Your task to perform on an android device: Go to Wikipedia Image 0: 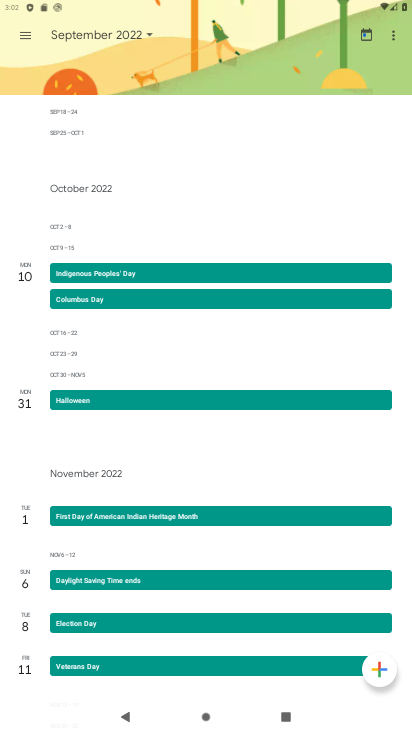
Step 0: drag from (230, 557) to (274, 337)
Your task to perform on an android device: Go to Wikipedia Image 1: 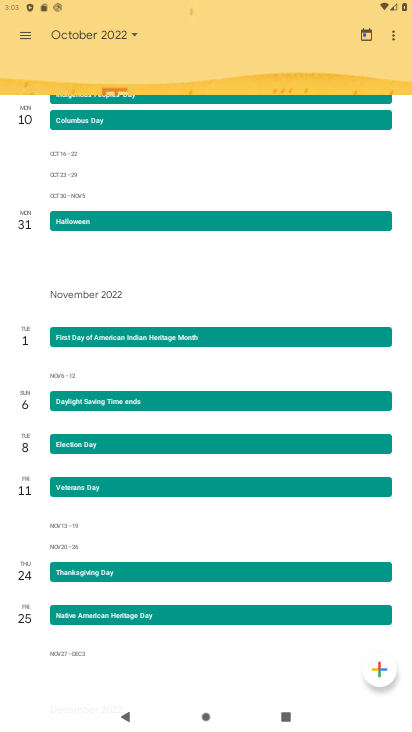
Step 1: press home button
Your task to perform on an android device: Go to Wikipedia Image 2: 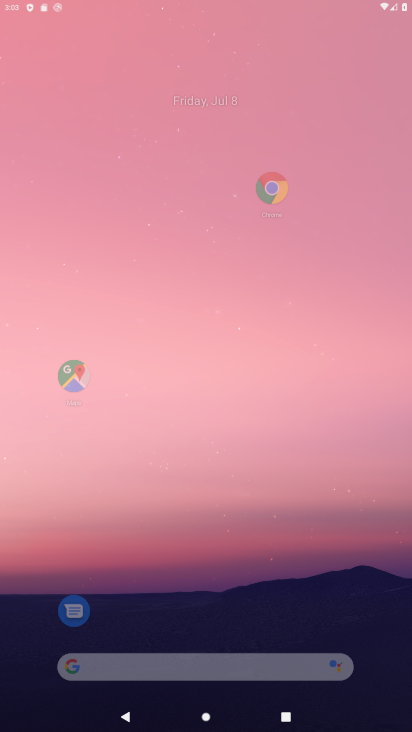
Step 2: drag from (218, 610) to (324, 50)
Your task to perform on an android device: Go to Wikipedia Image 3: 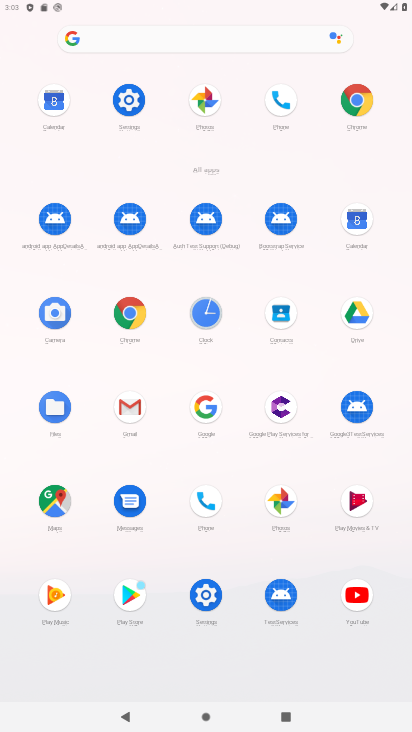
Step 3: click (353, 101)
Your task to perform on an android device: Go to Wikipedia Image 4: 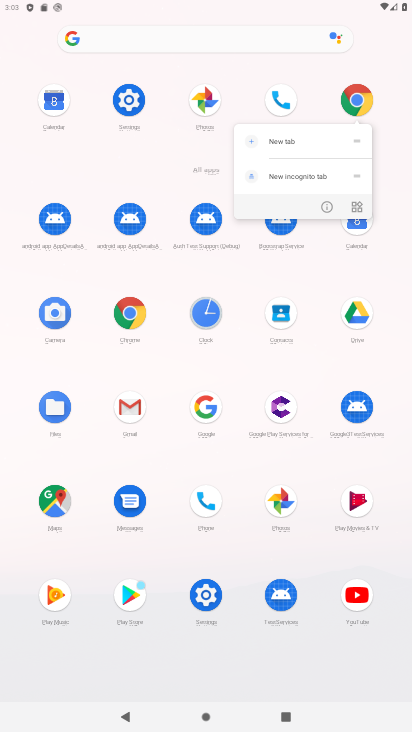
Step 4: click (325, 200)
Your task to perform on an android device: Go to Wikipedia Image 5: 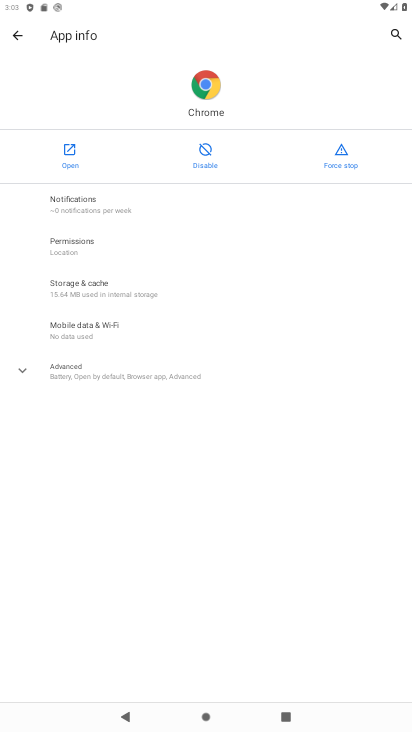
Step 5: click (65, 150)
Your task to perform on an android device: Go to Wikipedia Image 6: 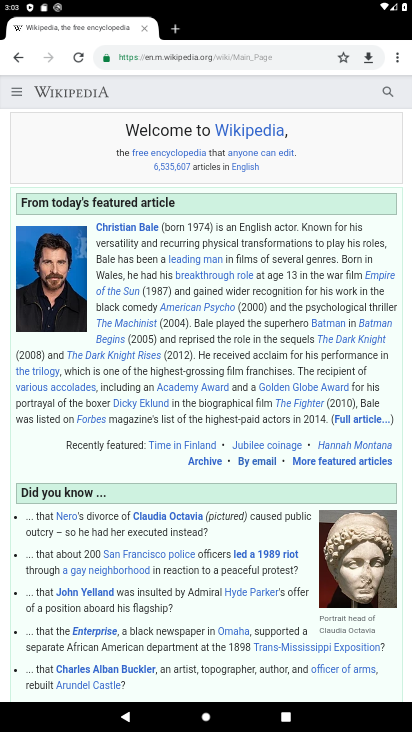
Step 6: task complete